Your task to perform on an android device: Go to Google maps Image 0: 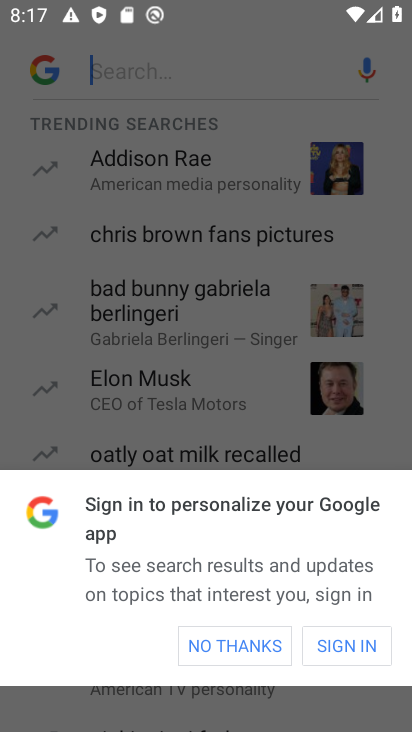
Step 0: click (243, 651)
Your task to perform on an android device: Go to Google maps Image 1: 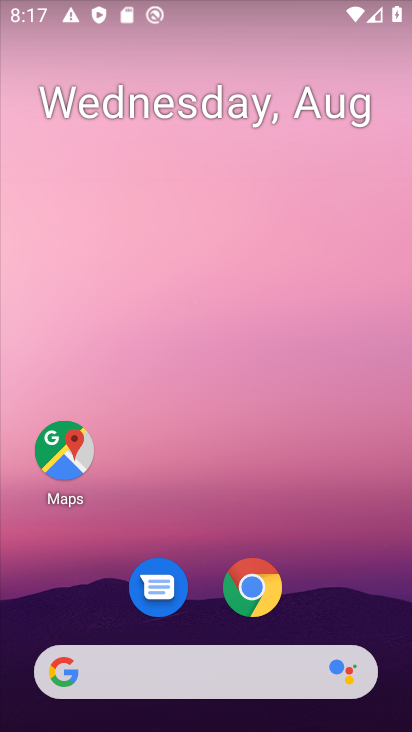
Step 1: press back button
Your task to perform on an android device: Go to Google maps Image 2: 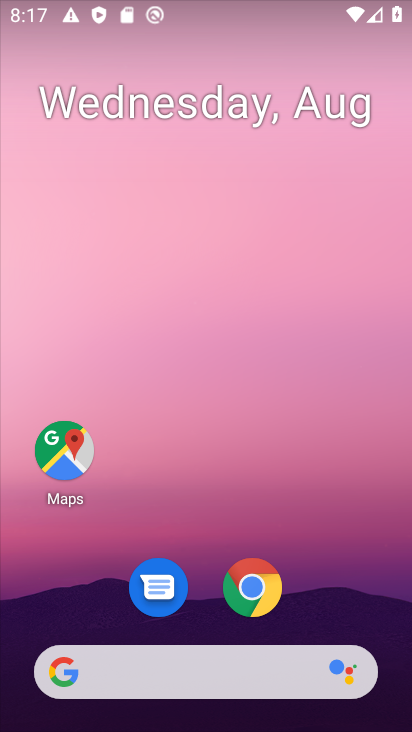
Step 2: drag from (203, 690) to (106, 198)
Your task to perform on an android device: Go to Google maps Image 3: 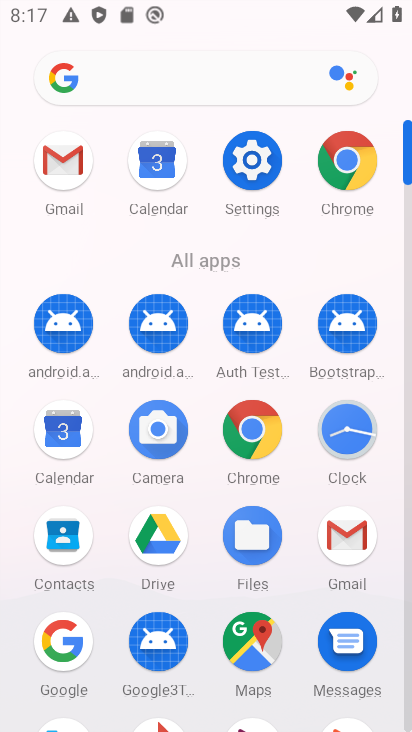
Step 3: click (255, 643)
Your task to perform on an android device: Go to Google maps Image 4: 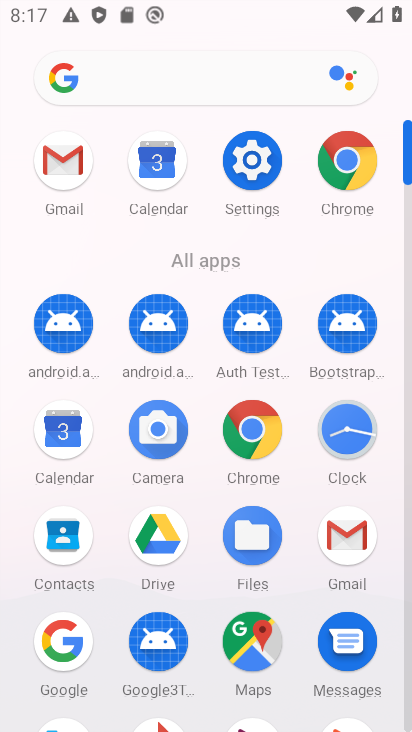
Step 4: click (255, 643)
Your task to perform on an android device: Go to Google maps Image 5: 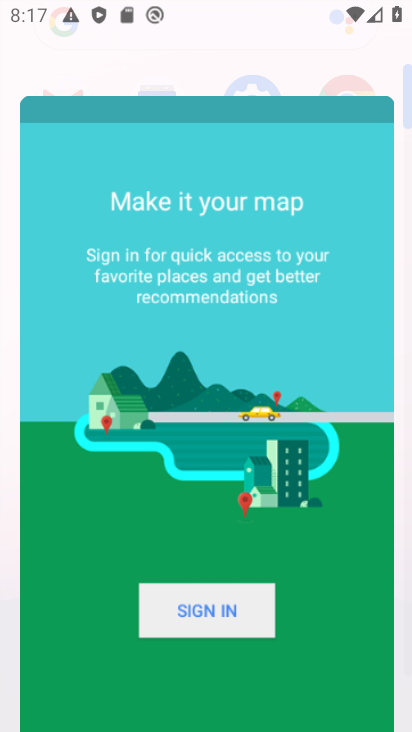
Step 5: click (254, 642)
Your task to perform on an android device: Go to Google maps Image 6: 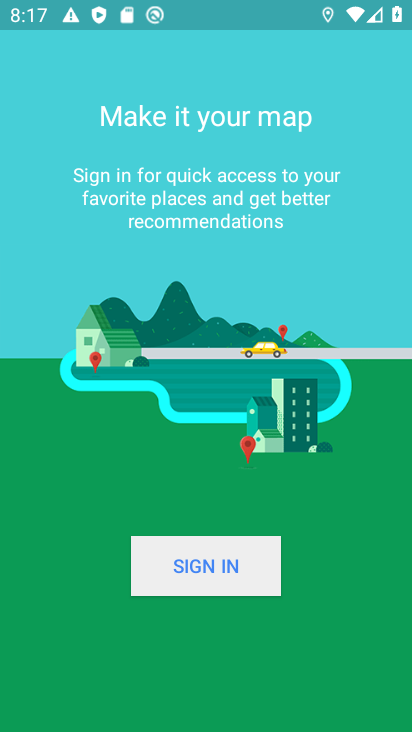
Step 6: click (376, 64)
Your task to perform on an android device: Go to Google maps Image 7: 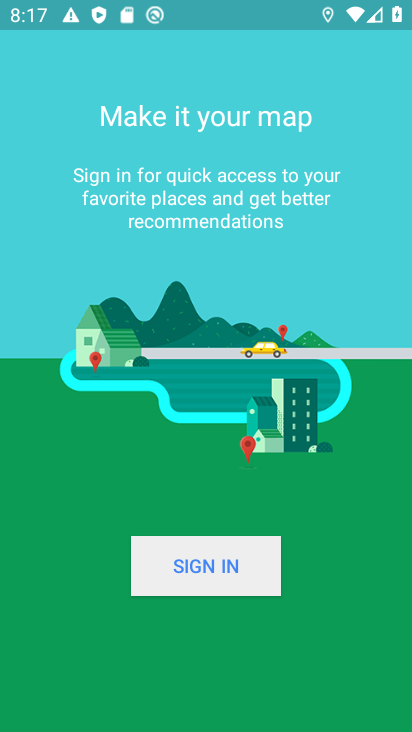
Step 7: click (377, 62)
Your task to perform on an android device: Go to Google maps Image 8: 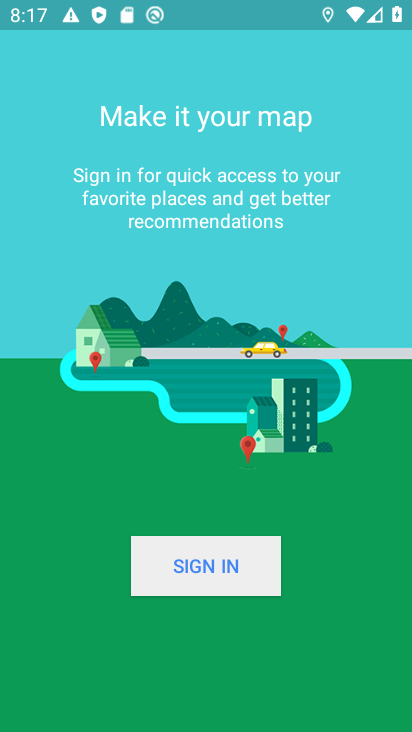
Step 8: click (340, 74)
Your task to perform on an android device: Go to Google maps Image 9: 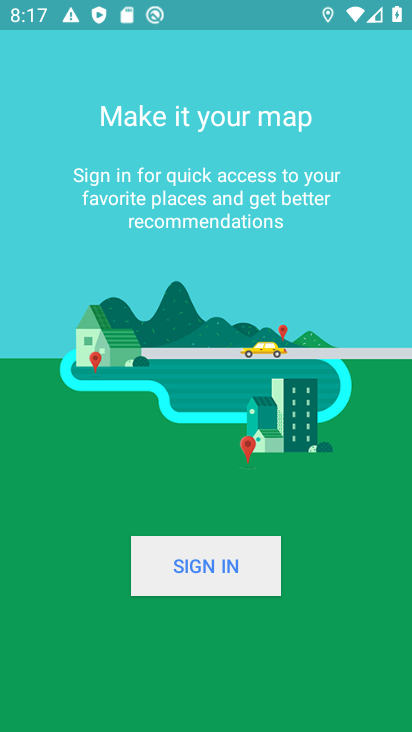
Step 9: click (340, 74)
Your task to perform on an android device: Go to Google maps Image 10: 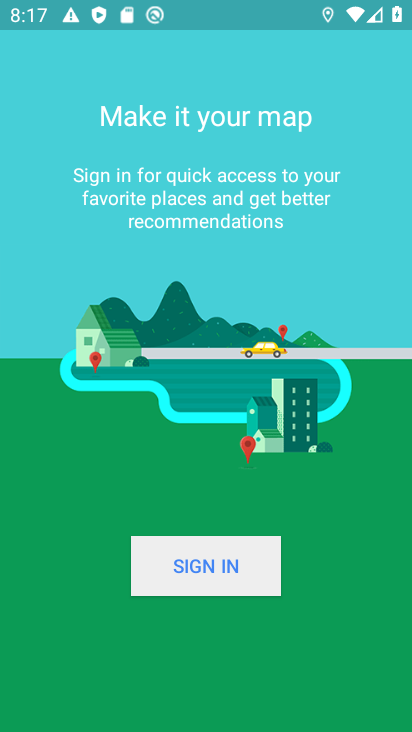
Step 10: click (340, 74)
Your task to perform on an android device: Go to Google maps Image 11: 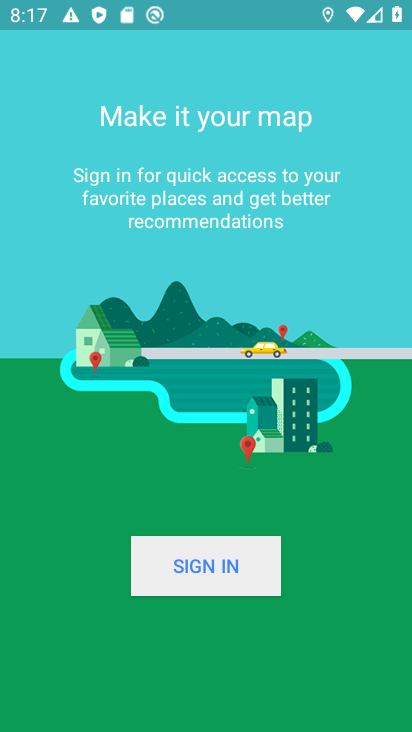
Step 11: click (340, 71)
Your task to perform on an android device: Go to Google maps Image 12: 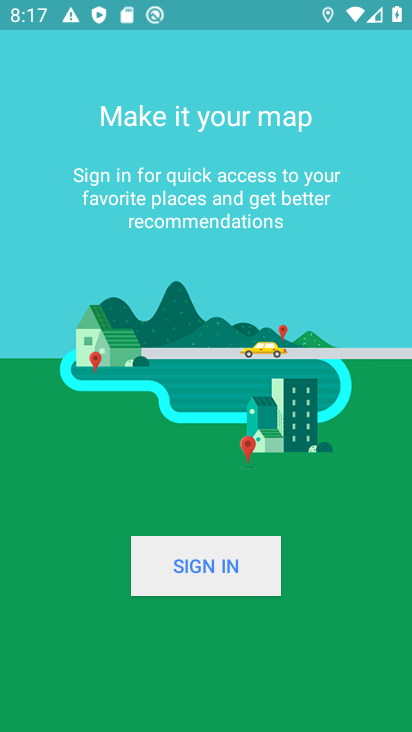
Step 12: task complete